Your task to perform on an android device: create a new album in the google photos Image 0: 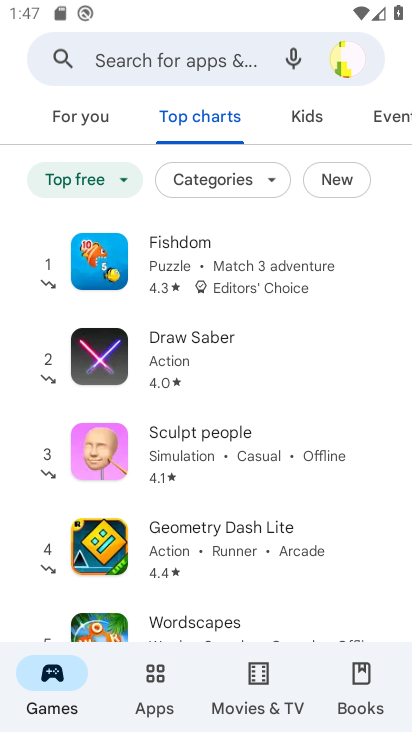
Step 0: press home button
Your task to perform on an android device: create a new album in the google photos Image 1: 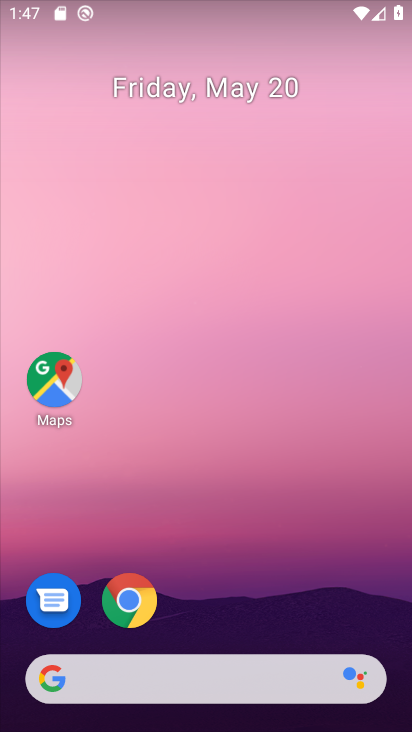
Step 1: drag from (281, 575) to (205, 2)
Your task to perform on an android device: create a new album in the google photos Image 2: 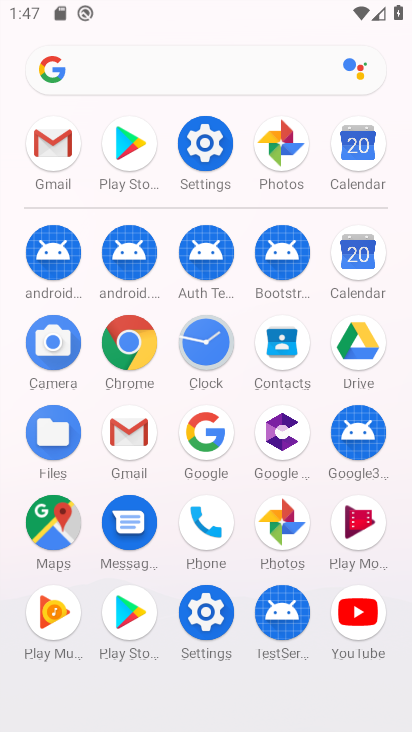
Step 2: click (279, 521)
Your task to perform on an android device: create a new album in the google photos Image 3: 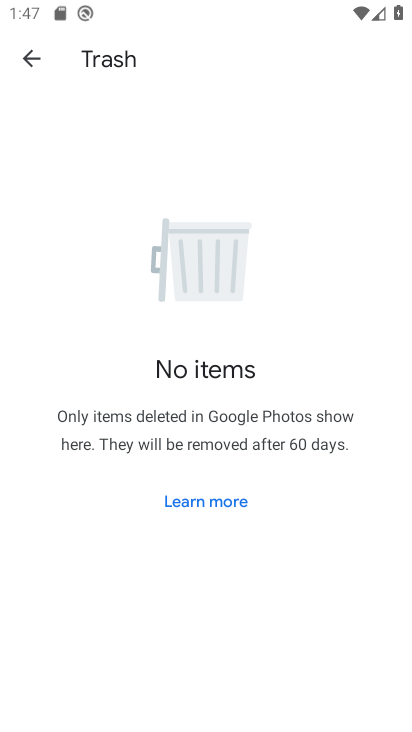
Step 3: click (42, 54)
Your task to perform on an android device: create a new album in the google photos Image 4: 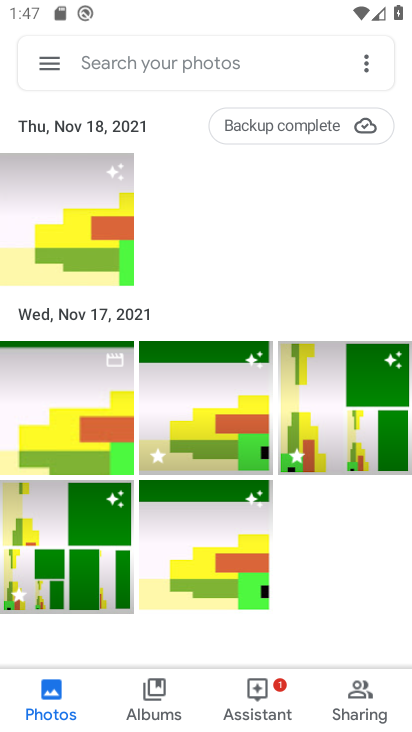
Step 4: click (163, 699)
Your task to perform on an android device: create a new album in the google photos Image 5: 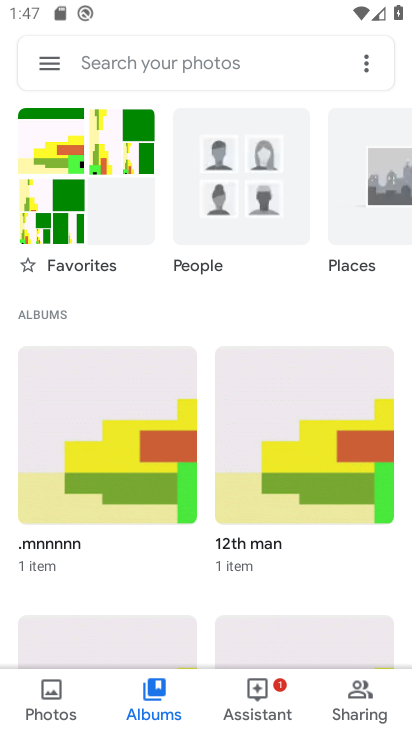
Step 5: drag from (143, 581) to (138, 224)
Your task to perform on an android device: create a new album in the google photos Image 6: 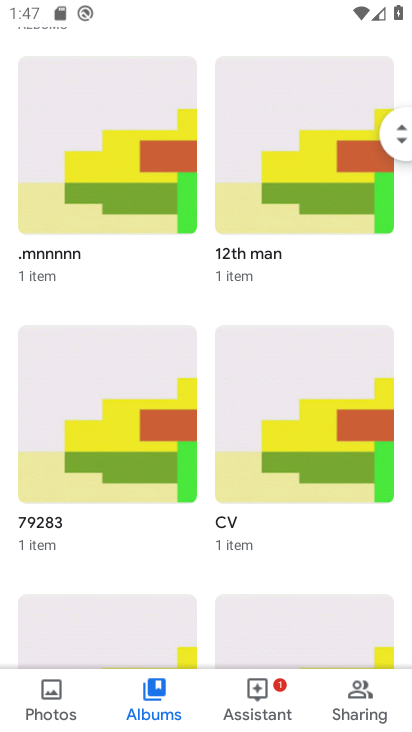
Step 6: drag from (118, 192) to (108, 655)
Your task to perform on an android device: create a new album in the google photos Image 7: 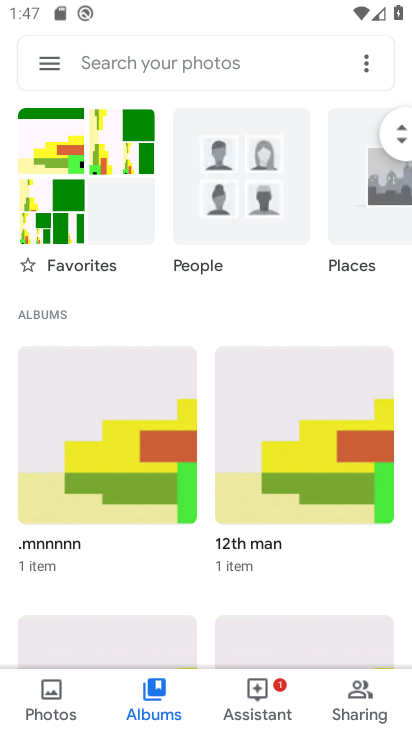
Step 7: click (189, 174)
Your task to perform on an android device: create a new album in the google photos Image 8: 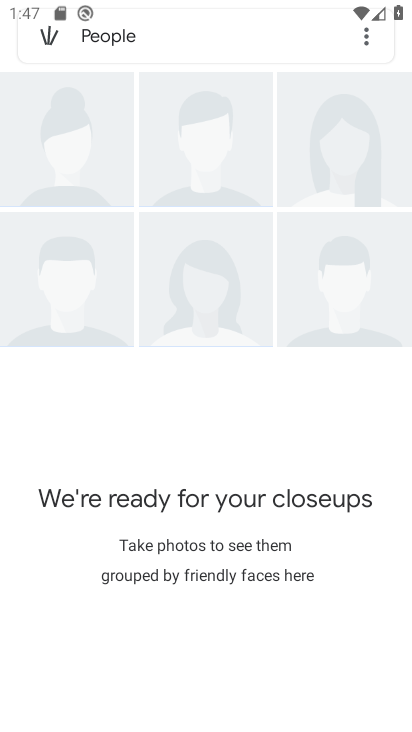
Step 8: drag from (143, 572) to (110, 215)
Your task to perform on an android device: create a new album in the google photos Image 9: 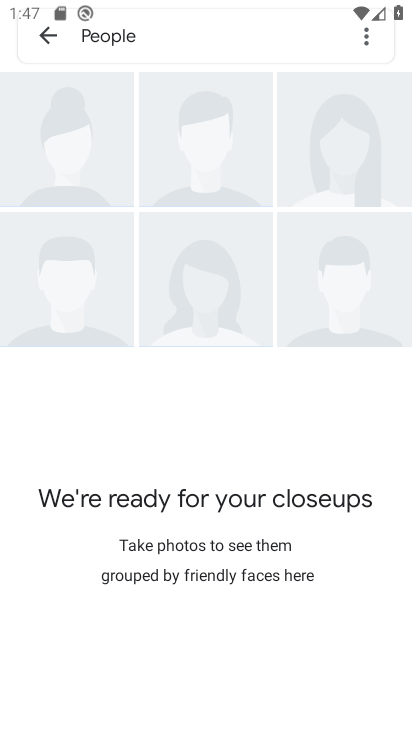
Step 9: click (56, 46)
Your task to perform on an android device: create a new album in the google photos Image 10: 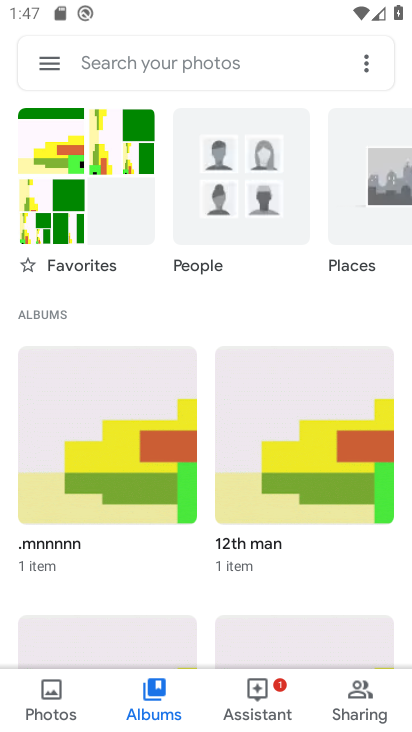
Step 10: drag from (196, 524) to (169, 80)
Your task to perform on an android device: create a new album in the google photos Image 11: 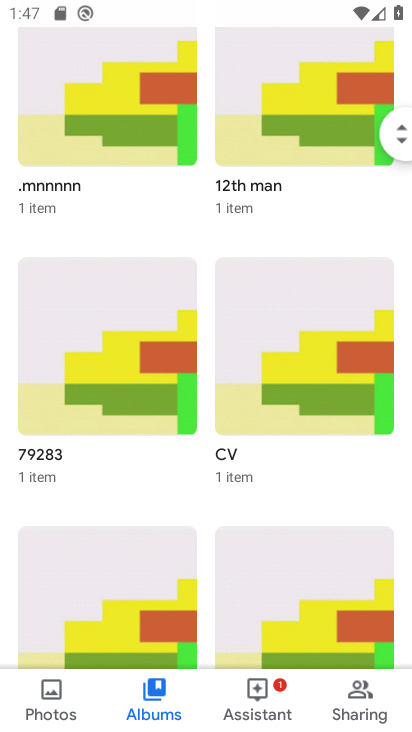
Step 11: drag from (174, 491) to (189, 141)
Your task to perform on an android device: create a new album in the google photos Image 12: 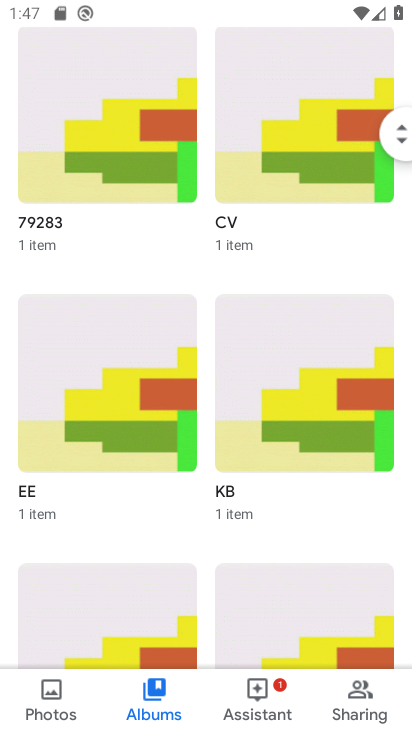
Step 12: drag from (159, 538) to (172, 95)
Your task to perform on an android device: create a new album in the google photos Image 13: 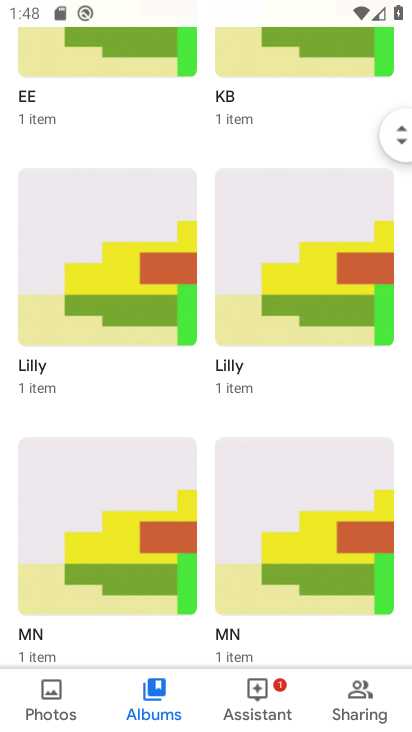
Step 13: drag from (150, 516) to (170, 101)
Your task to perform on an android device: create a new album in the google photos Image 14: 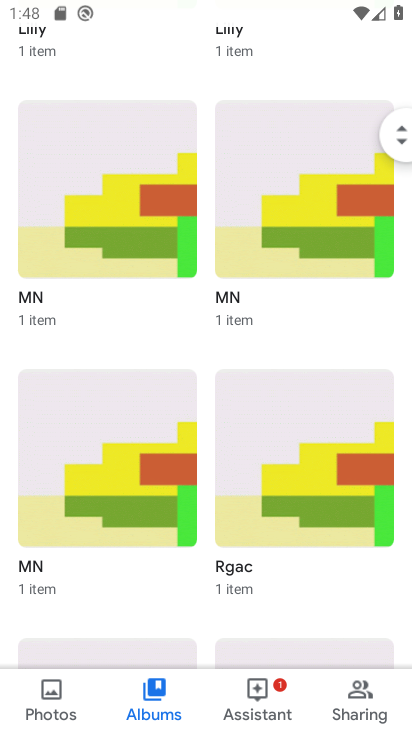
Step 14: drag from (127, 470) to (167, 104)
Your task to perform on an android device: create a new album in the google photos Image 15: 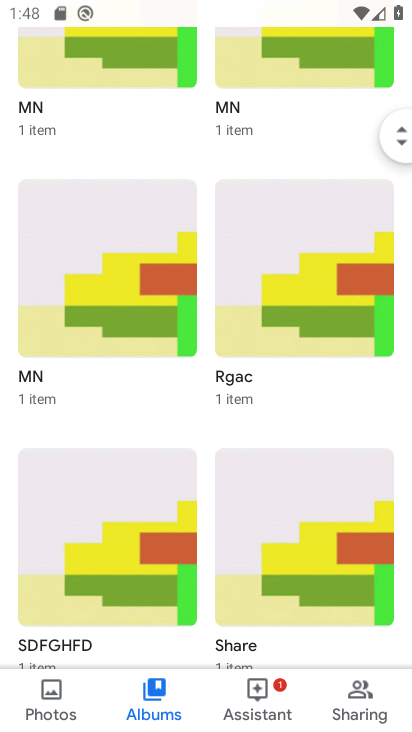
Step 15: drag from (393, 139) to (204, 0)
Your task to perform on an android device: create a new album in the google photos Image 16: 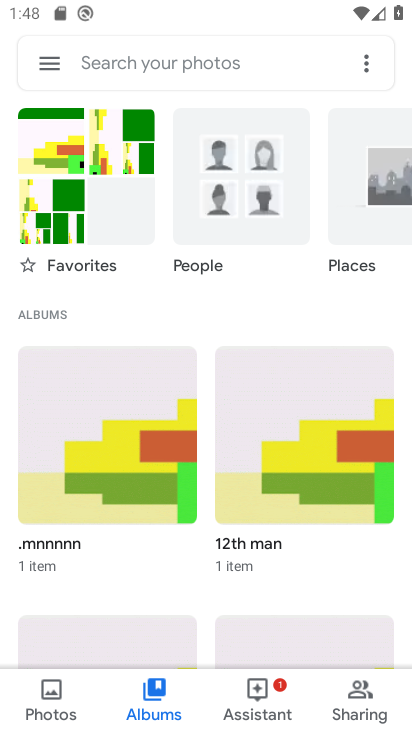
Step 16: drag from (348, 196) to (78, 205)
Your task to perform on an android device: create a new album in the google photos Image 17: 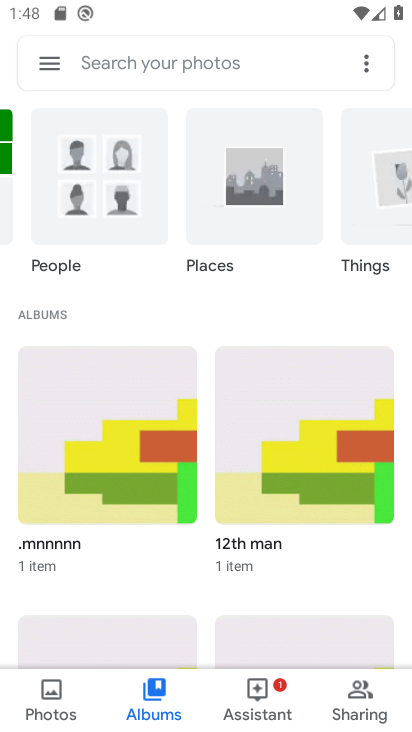
Step 17: drag from (315, 228) to (5, 242)
Your task to perform on an android device: create a new album in the google photos Image 18: 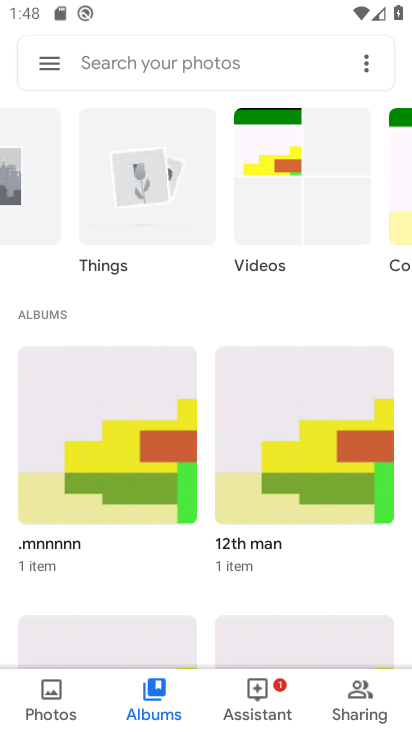
Step 18: drag from (282, 202) to (4, 275)
Your task to perform on an android device: create a new album in the google photos Image 19: 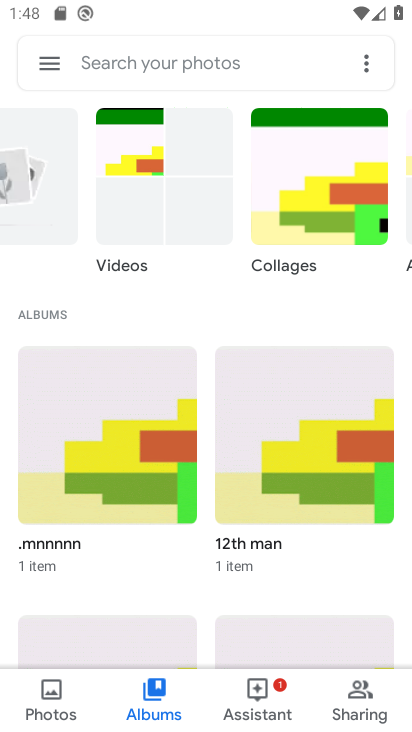
Step 19: click (364, 63)
Your task to perform on an android device: create a new album in the google photos Image 20: 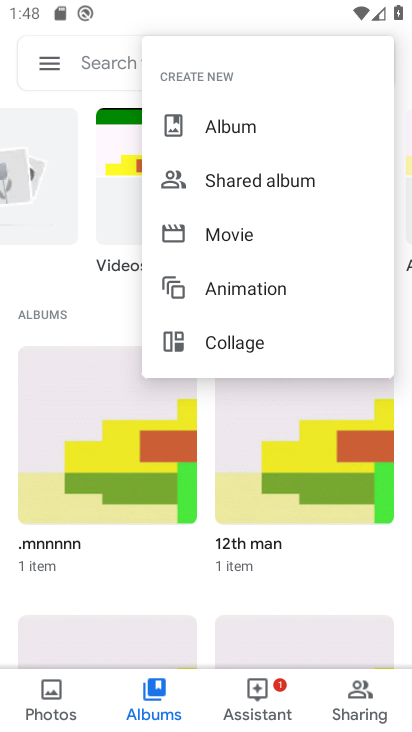
Step 20: click (248, 113)
Your task to perform on an android device: create a new album in the google photos Image 21: 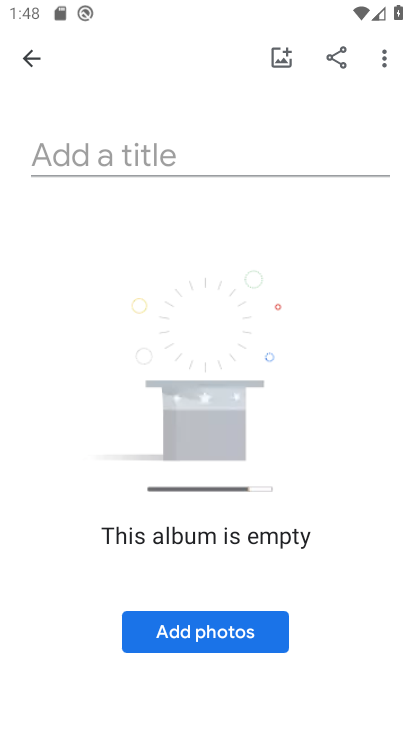
Step 21: click (122, 150)
Your task to perform on an android device: create a new album in the google photos Image 22: 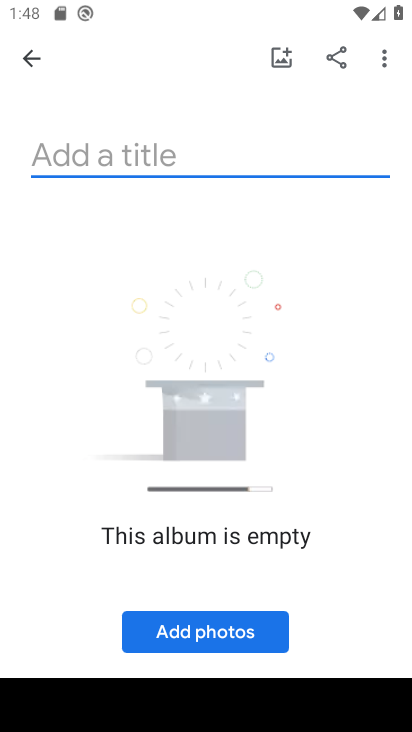
Step 22: type "hfghdfgh"
Your task to perform on an android device: create a new album in the google photos Image 23: 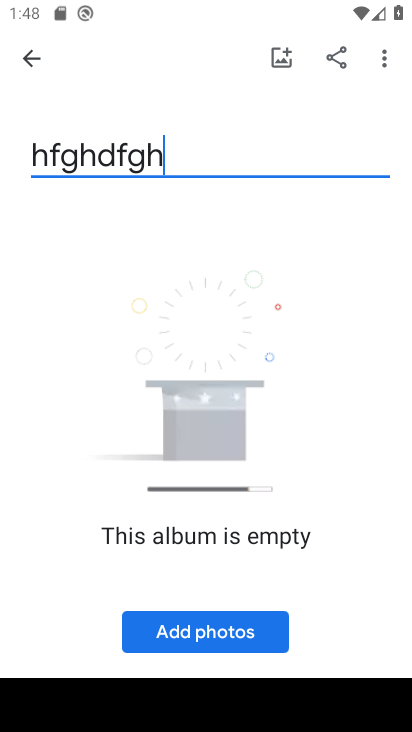
Step 23: type ""
Your task to perform on an android device: create a new album in the google photos Image 24: 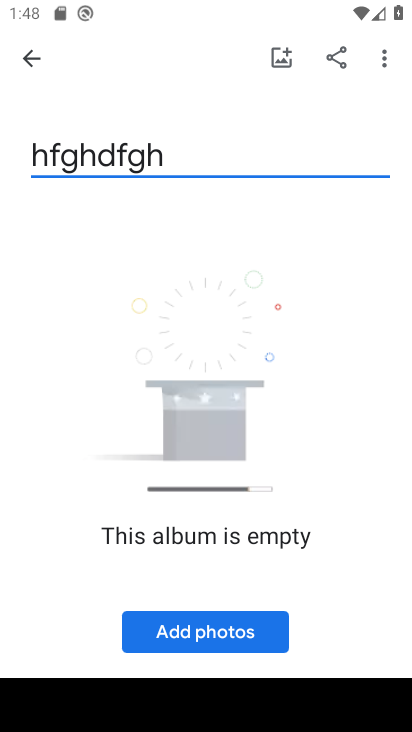
Step 24: click (232, 632)
Your task to perform on an android device: create a new album in the google photos Image 25: 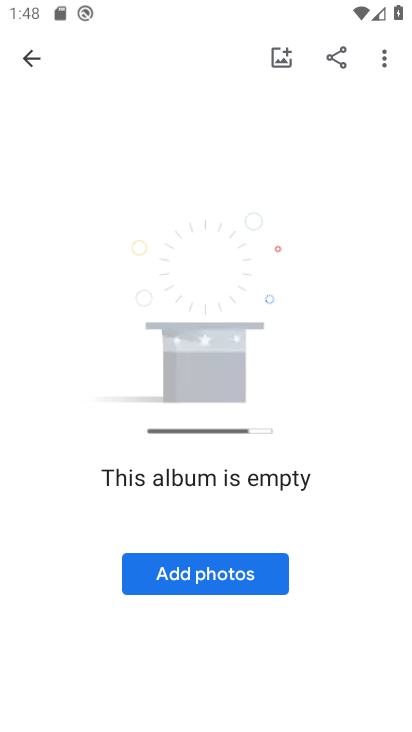
Step 25: click (249, 573)
Your task to perform on an android device: create a new album in the google photos Image 26: 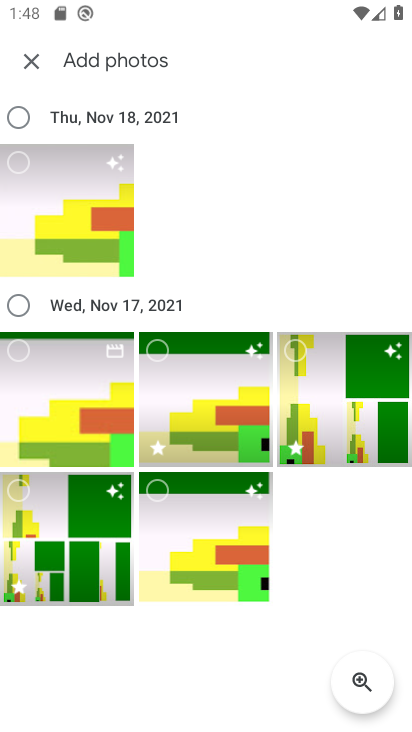
Step 26: click (81, 194)
Your task to perform on an android device: create a new album in the google photos Image 27: 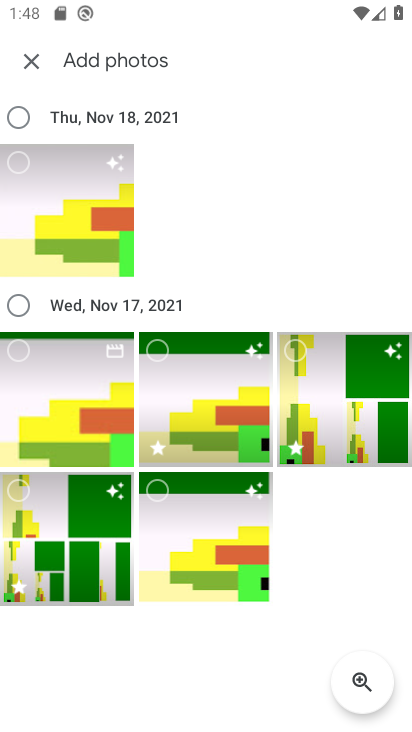
Step 27: click (95, 401)
Your task to perform on an android device: create a new album in the google photos Image 28: 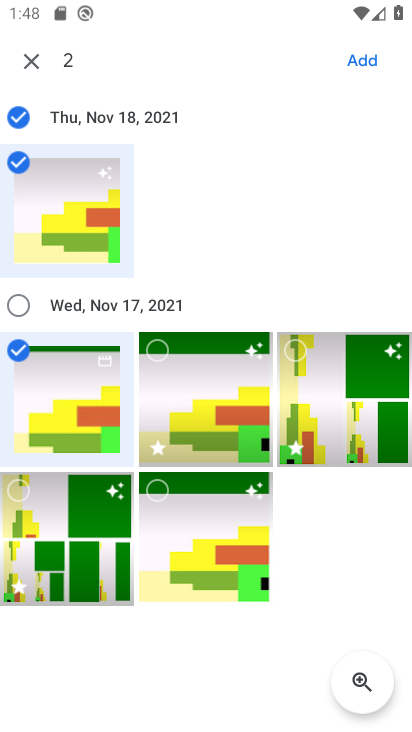
Step 28: click (170, 543)
Your task to perform on an android device: create a new album in the google photos Image 29: 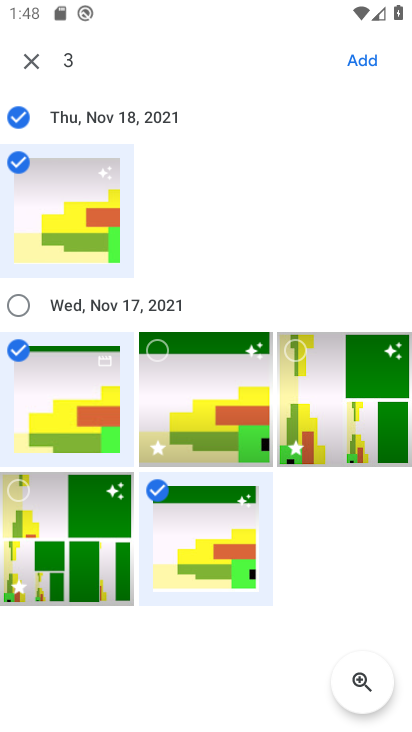
Step 29: click (351, 59)
Your task to perform on an android device: create a new album in the google photos Image 30: 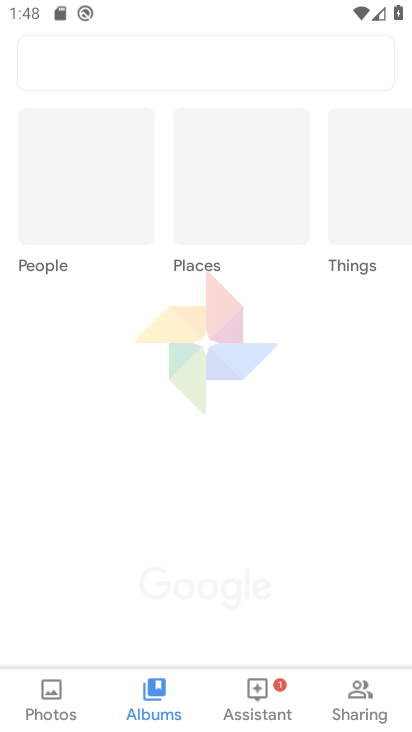
Step 30: task complete